Your task to perform on an android device: Open calendar and show me the second week of next month Image 0: 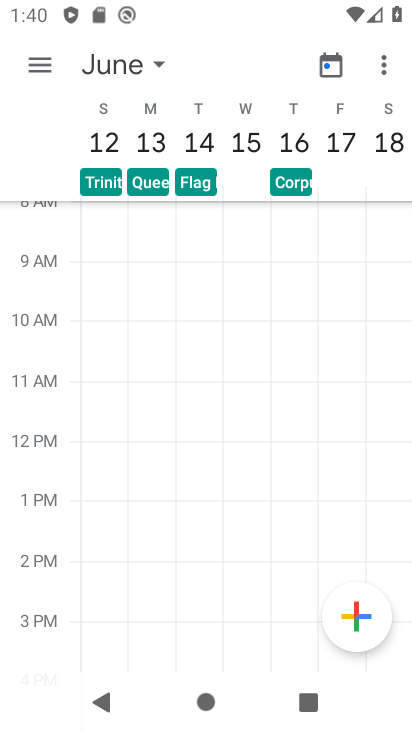
Step 0: click (135, 56)
Your task to perform on an android device: Open calendar and show me the second week of next month Image 1: 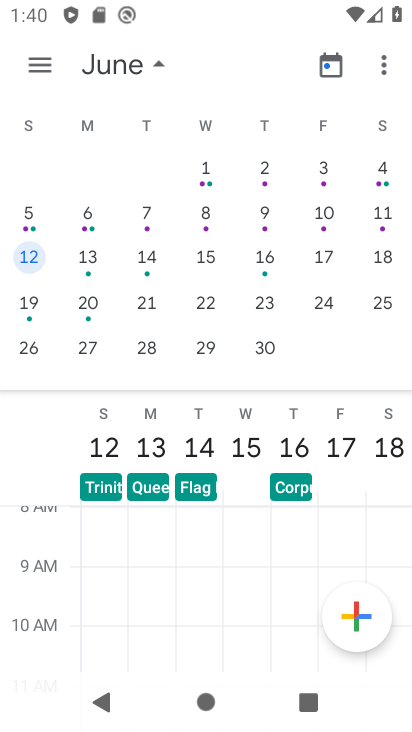
Step 1: click (146, 55)
Your task to perform on an android device: Open calendar and show me the second week of next month Image 2: 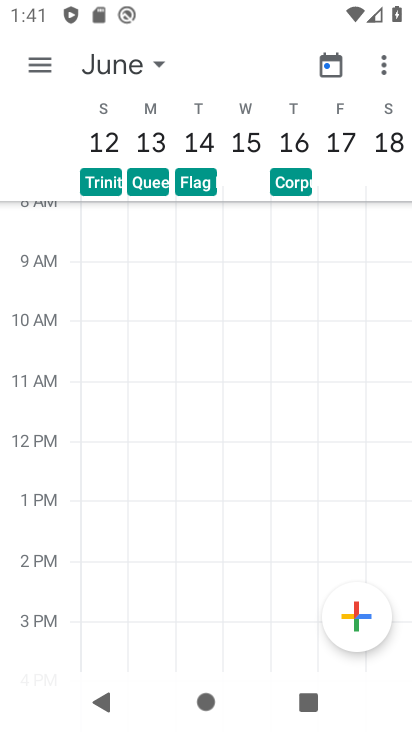
Step 2: task complete